Your task to perform on an android device: change alarm snooze length Image 0: 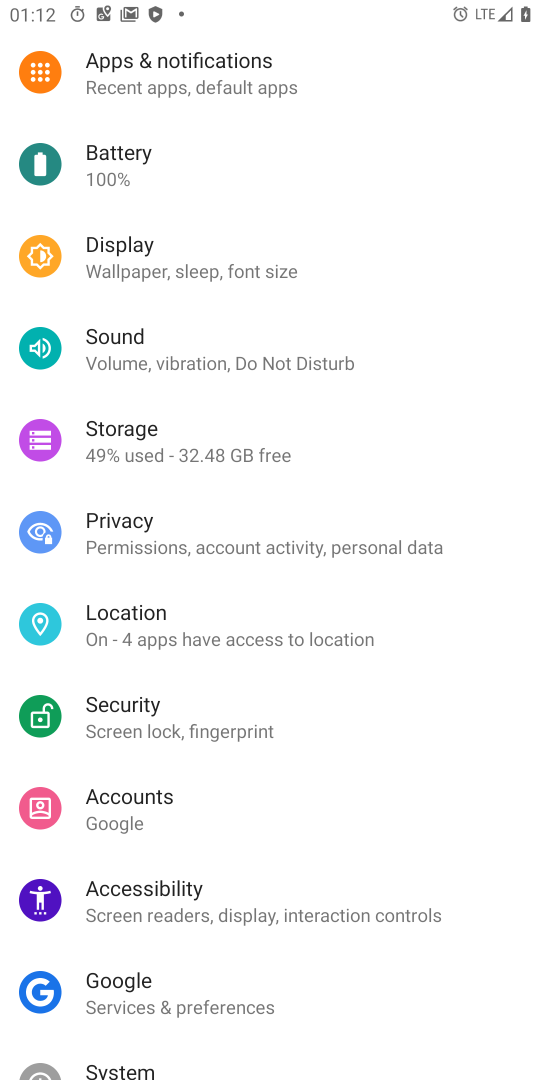
Step 0: press home button
Your task to perform on an android device: change alarm snooze length Image 1: 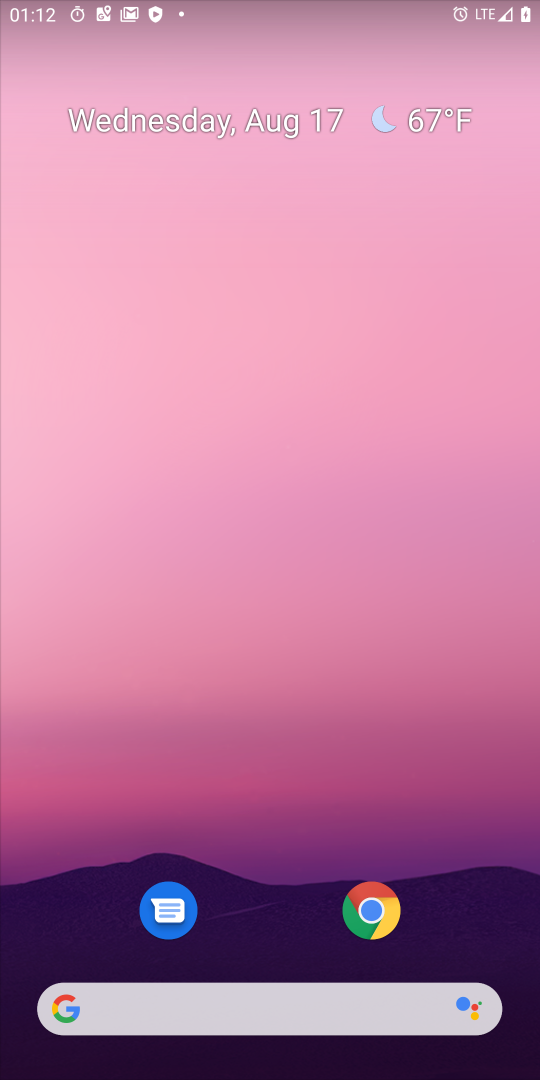
Step 1: drag from (243, 912) to (406, 5)
Your task to perform on an android device: change alarm snooze length Image 2: 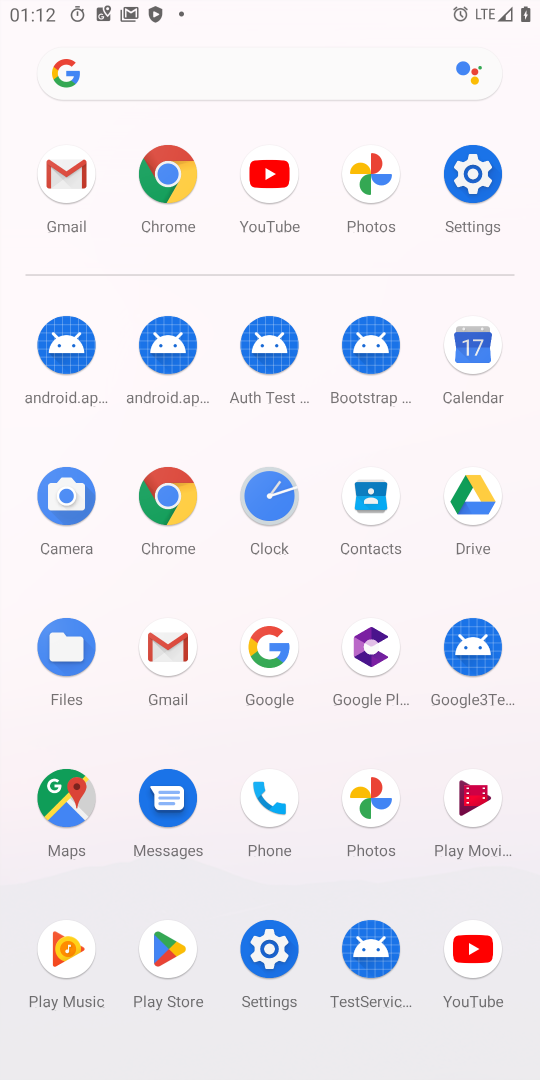
Step 2: click (281, 501)
Your task to perform on an android device: change alarm snooze length Image 3: 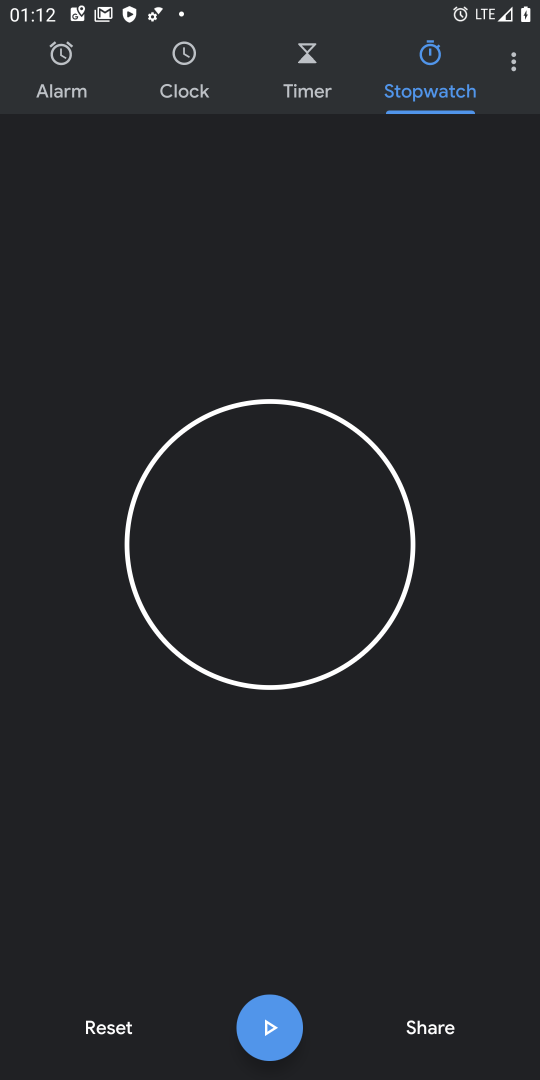
Step 3: click (510, 66)
Your task to perform on an android device: change alarm snooze length Image 4: 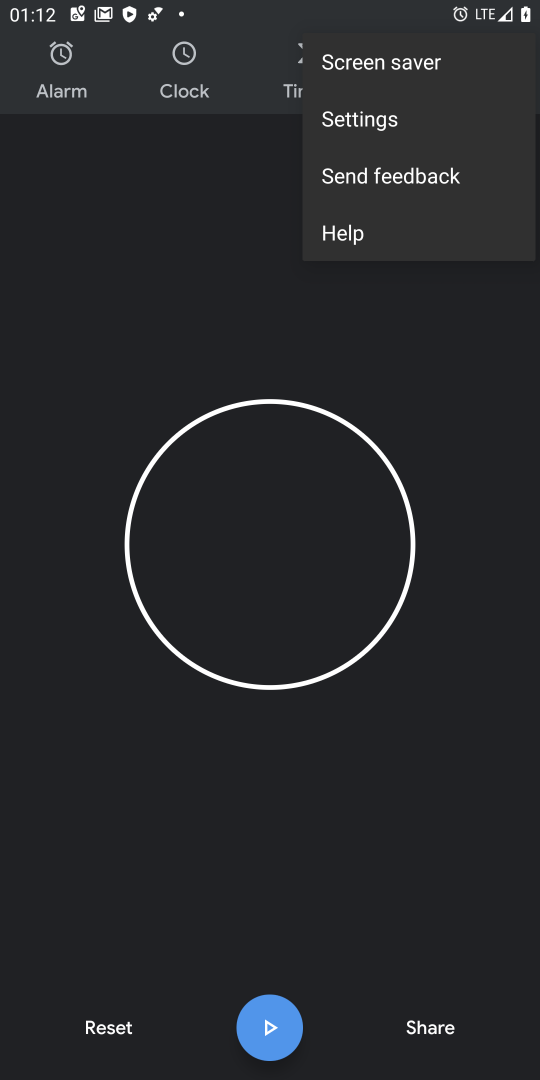
Step 4: click (359, 115)
Your task to perform on an android device: change alarm snooze length Image 5: 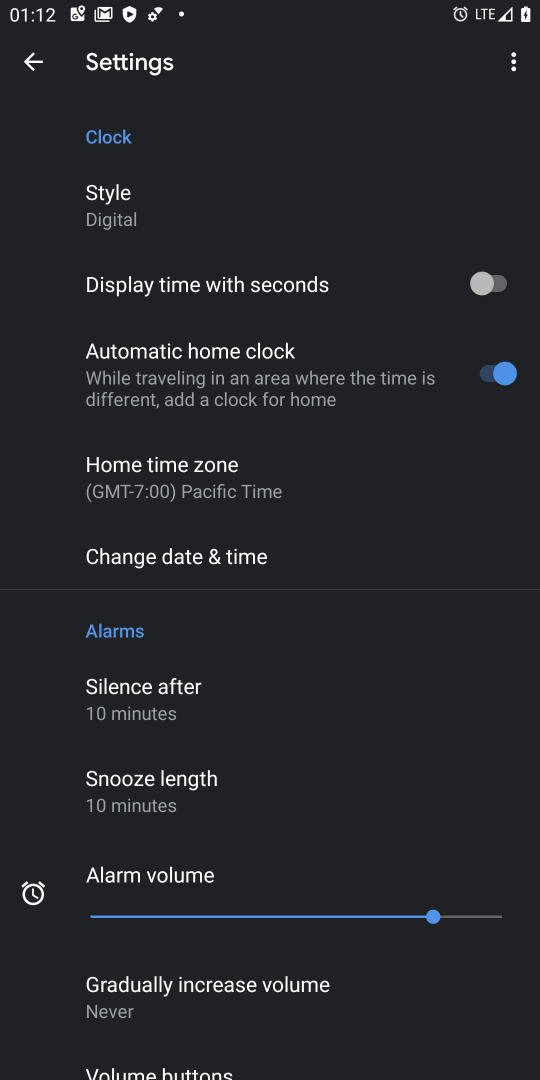
Step 5: click (171, 781)
Your task to perform on an android device: change alarm snooze length Image 6: 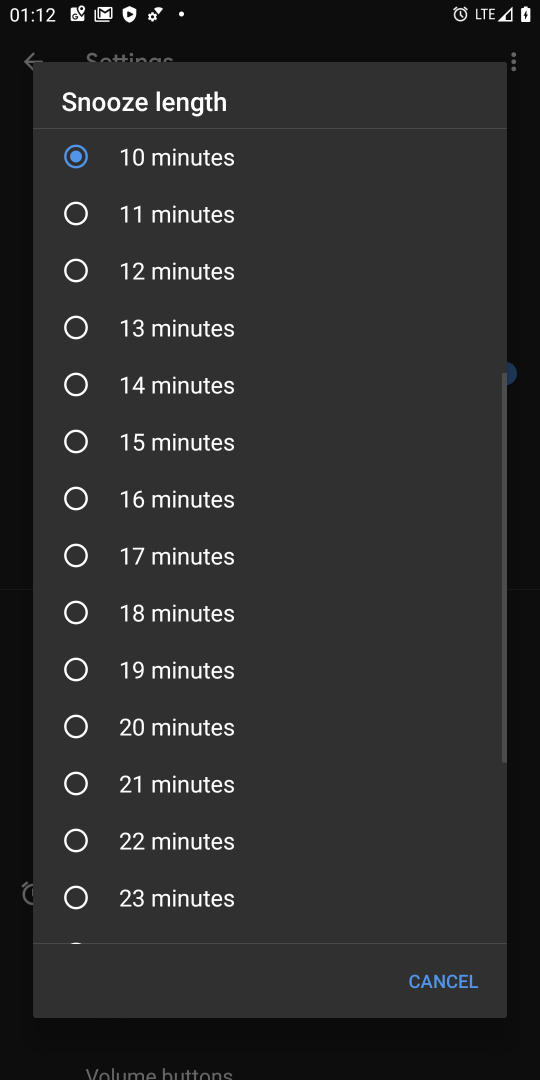
Step 6: click (187, 212)
Your task to perform on an android device: change alarm snooze length Image 7: 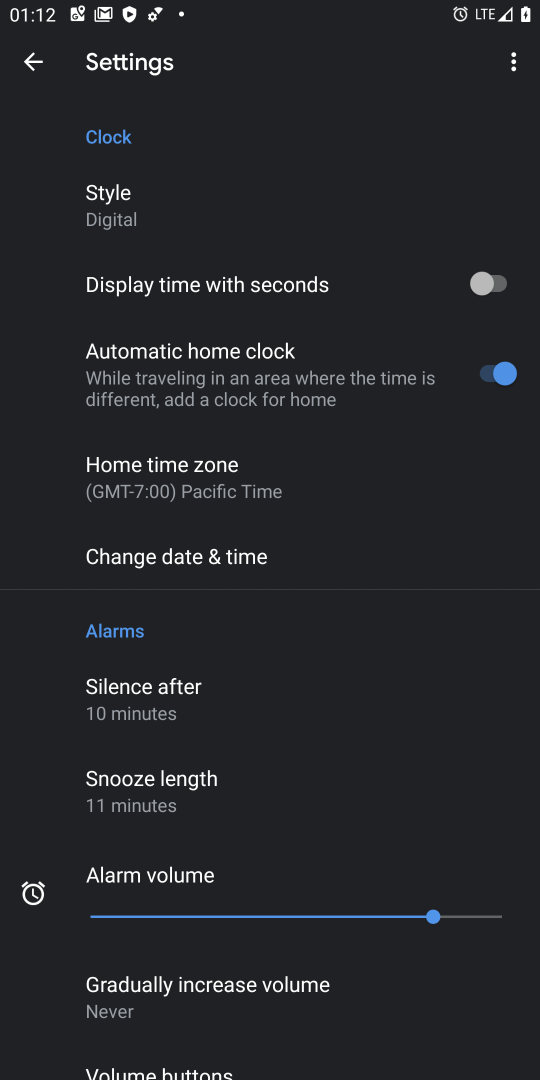
Step 7: task complete